Your task to perform on an android device: open device folders in google photos Image 0: 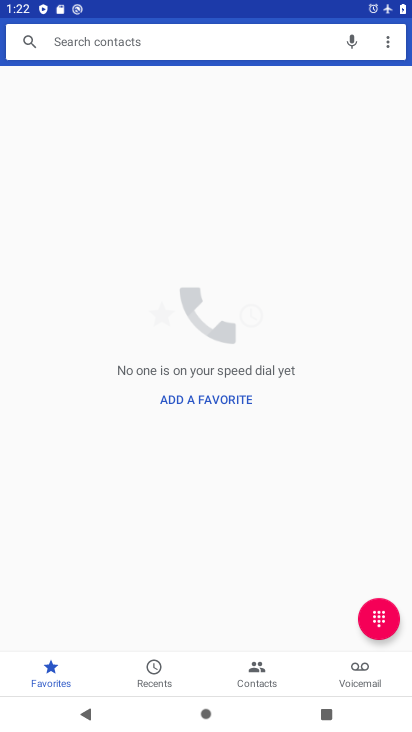
Step 0: press home button
Your task to perform on an android device: open device folders in google photos Image 1: 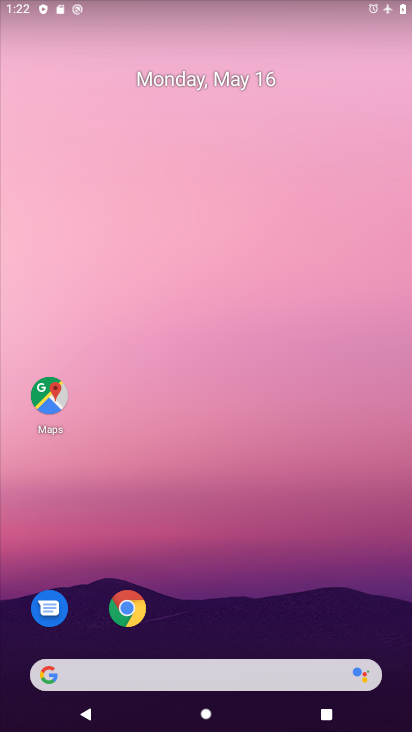
Step 1: drag from (255, 589) to (307, 133)
Your task to perform on an android device: open device folders in google photos Image 2: 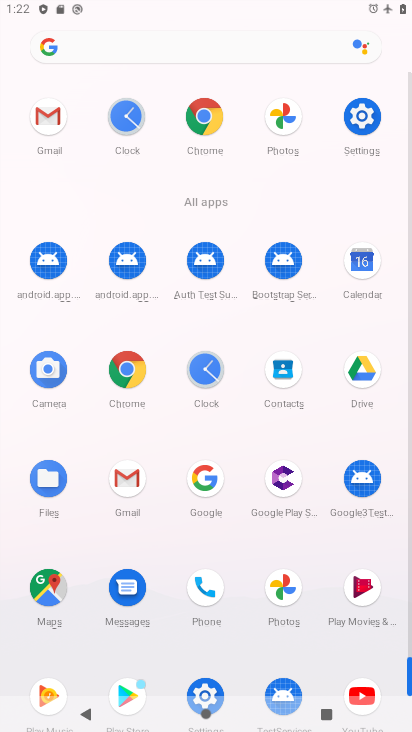
Step 2: click (285, 599)
Your task to perform on an android device: open device folders in google photos Image 3: 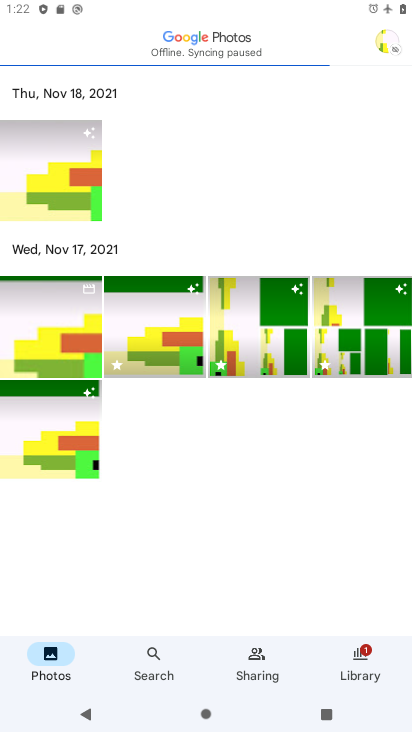
Step 3: click (150, 658)
Your task to perform on an android device: open device folders in google photos Image 4: 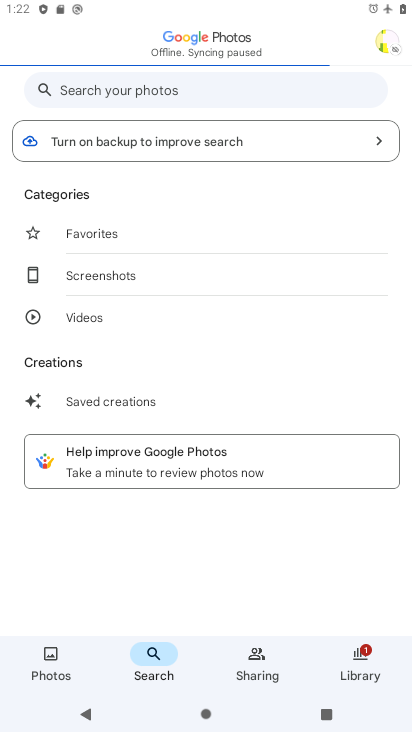
Step 4: click (198, 89)
Your task to perform on an android device: open device folders in google photos Image 5: 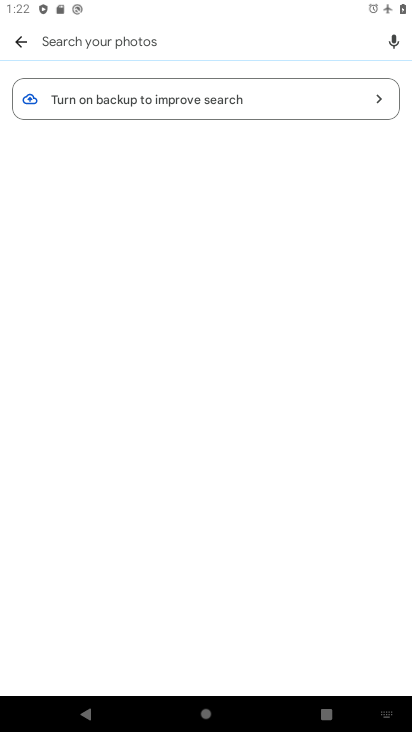
Step 5: type "device folders"
Your task to perform on an android device: open device folders in google photos Image 6: 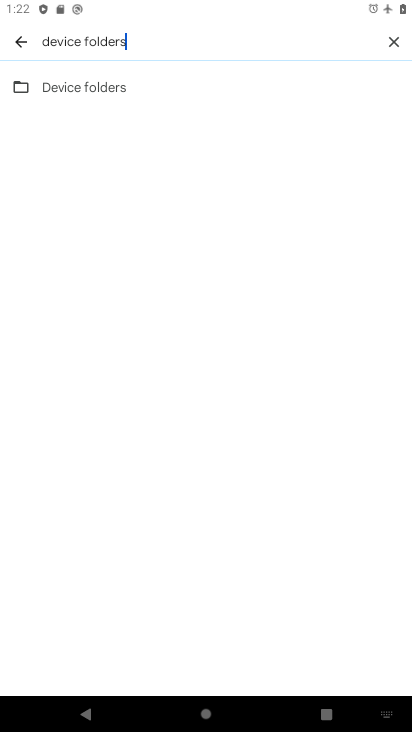
Step 6: click (151, 99)
Your task to perform on an android device: open device folders in google photos Image 7: 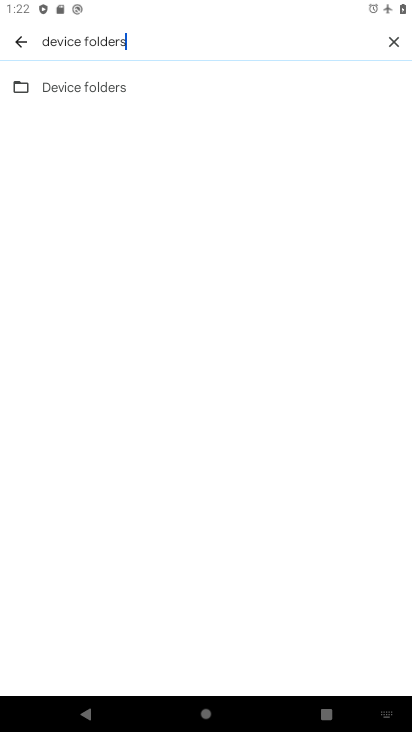
Step 7: click (121, 91)
Your task to perform on an android device: open device folders in google photos Image 8: 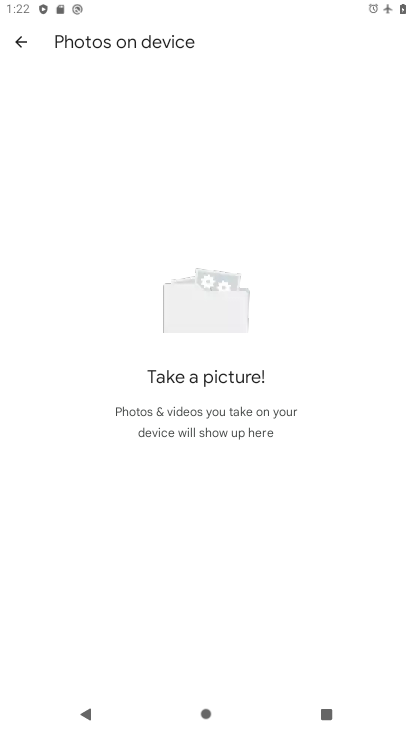
Step 8: task complete